Your task to perform on an android device: turn off smart reply in the gmail app Image 0: 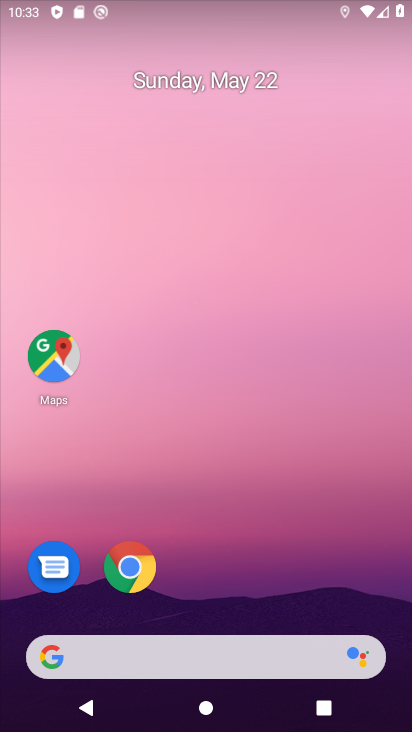
Step 0: drag from (351, 532) to (368, 100)
Your task to perform on an android device: turn off smart reply in the gmail app Image 1: 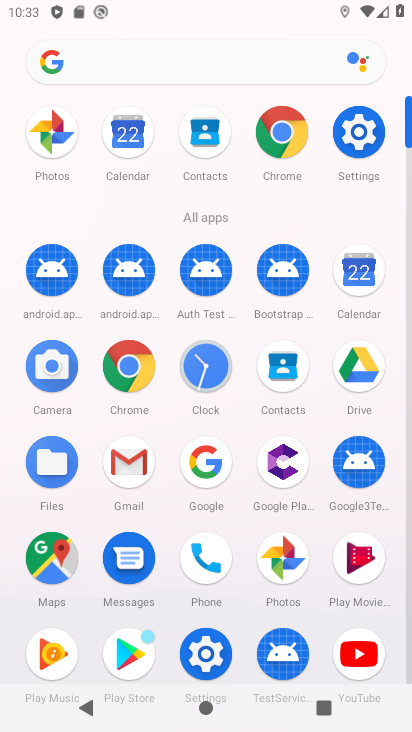
Step 1: click (144, 456)
Your task to perform on an android device: turn off smart reply in the gmail app Image 2: 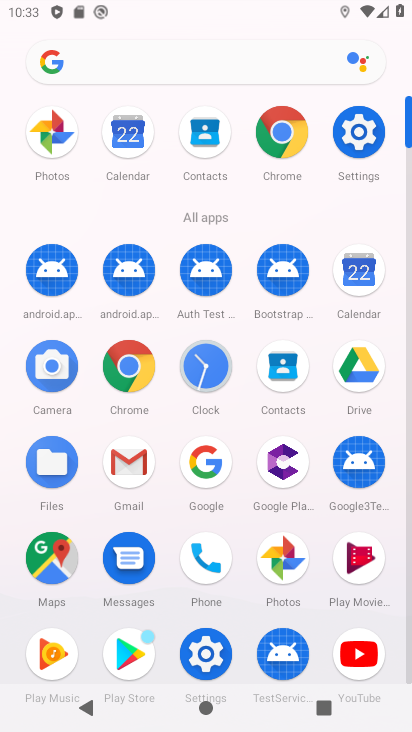
Step 2: click (148, 466)
Your task to perform on an android device: turn off smart reply in the gmail app Image 3: 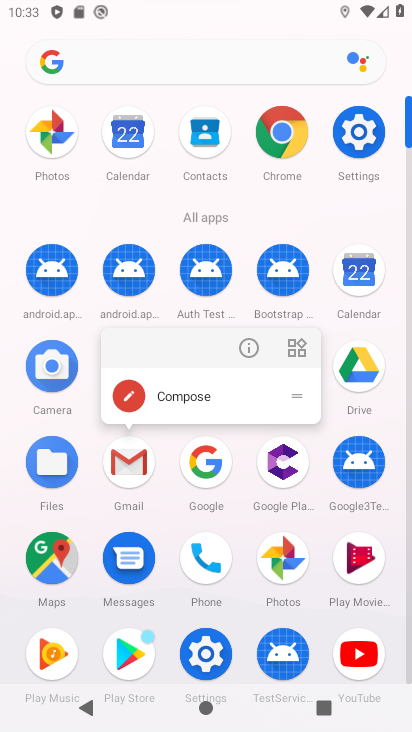
Step 3: click (148, 472)
Your task to perform on an android device: turn off smart reply in the gmail app Image 4: 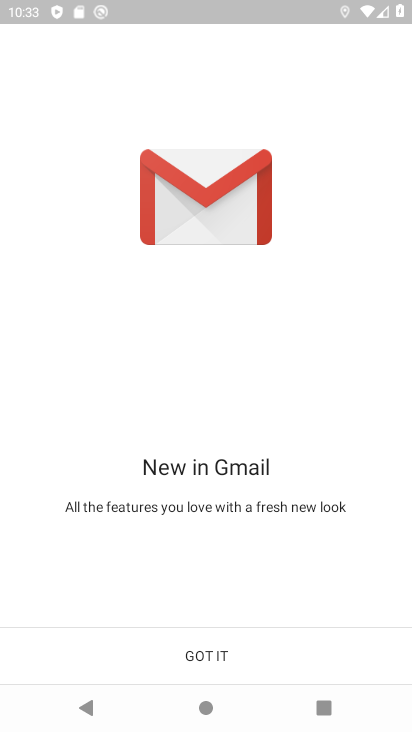
Step 4: click (203, 650)
Your task to perform on an android device: turn off smart reply in the gmail app Image 5: 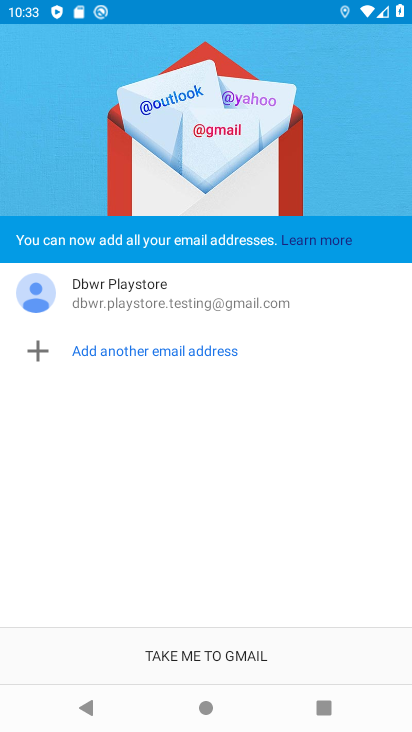
Step 5: click (215, 651)
Your task to perform on an android device: turn off smart reply in the gmail app Image 6: 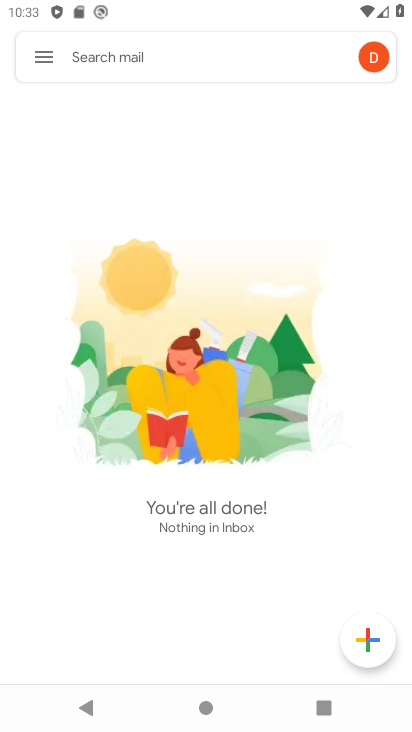
Step 6: click (49, 60)
Your task to perform on an android device: turn off smart reply in the gmail app Image 7: 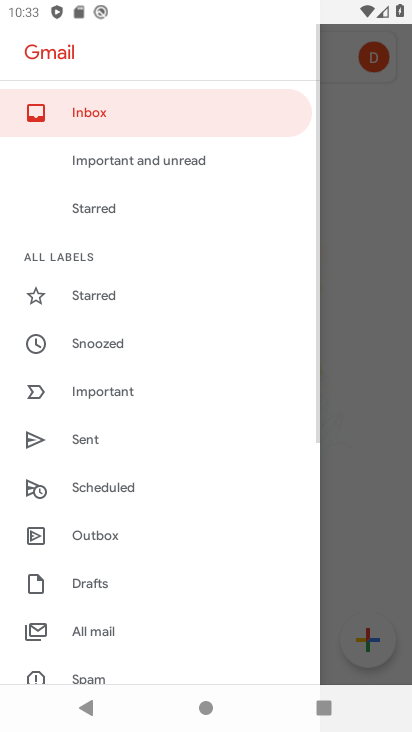
Step 7: drag from (188, 667) to (196, 221)
Your task to perform on an android device: turn off smart reply in the gmail app Image 8: 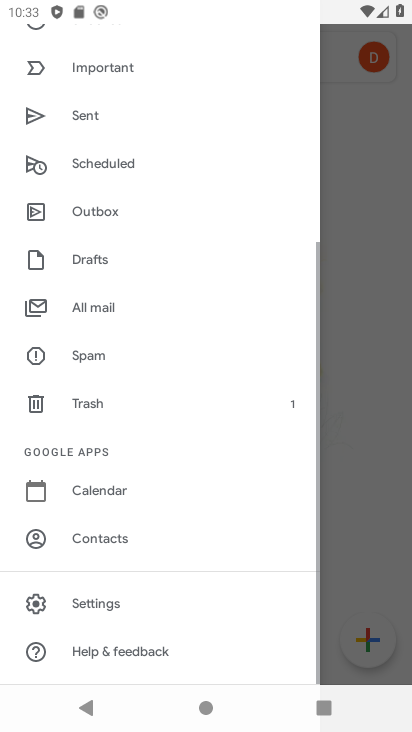
Step 8: drag from (190, 611) to (190, 321)
Your task to perform on an android device: turn off smart reply in the gmail app Image 9: 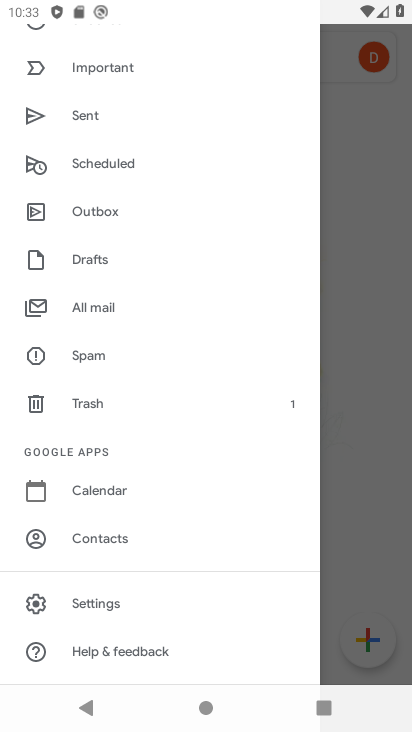
Step 9: click (158, 603)
Your task to perform on an android device: turn off smart reply in the gmail app Image 10: 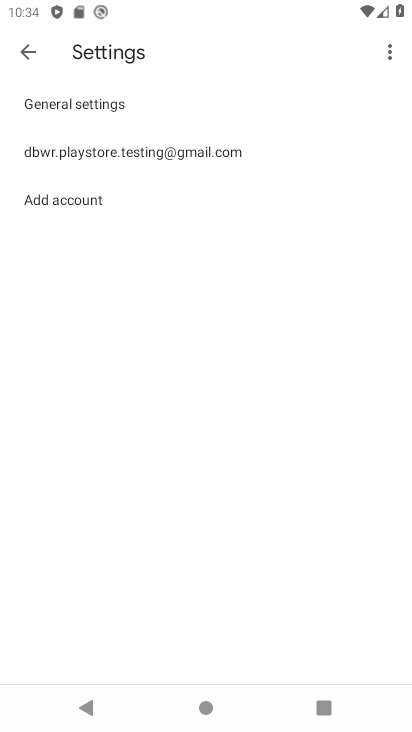
Step 10: click (213, 148)
Your task to perform on an android device: turn off smart reply in the gmail app Image 11: 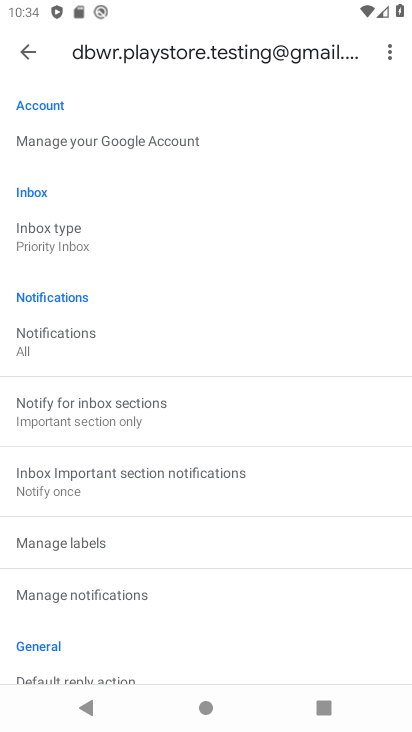
Step 11: drag from (216, 529) to (238, 240)
Your task to perform on an android device: turn off smart reply in the gmail app Image 12: 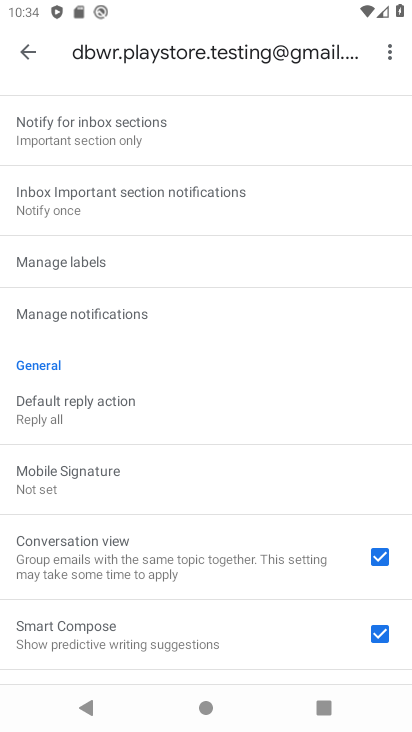
Step 12: drag from (251, 625) to (281, 174)
Your task to perform on an android device: turn off smart reply in the gmail app Image 13: 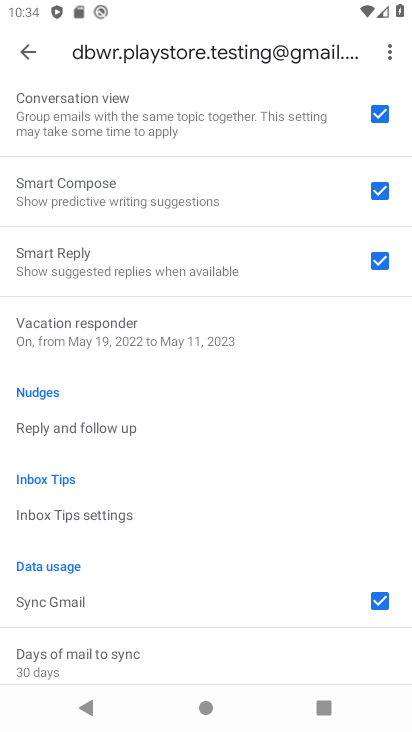
Step 13: click (380, 258)
Your task to perform on an android device: turn off smart reply in the gmail app Image 14: 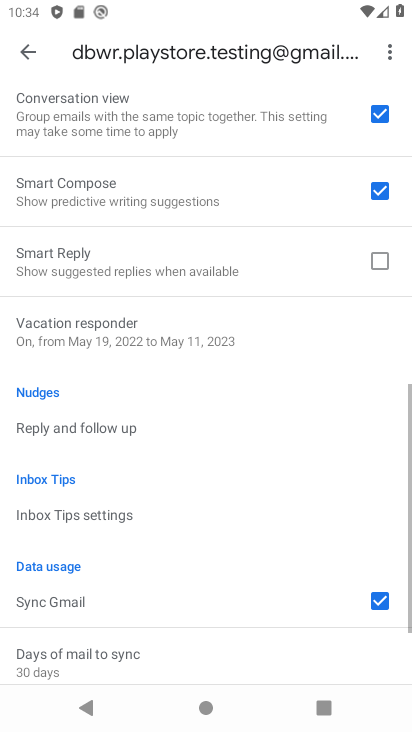
Step 14: task complete